Your task to perform on an android device: Open the map Image 0: 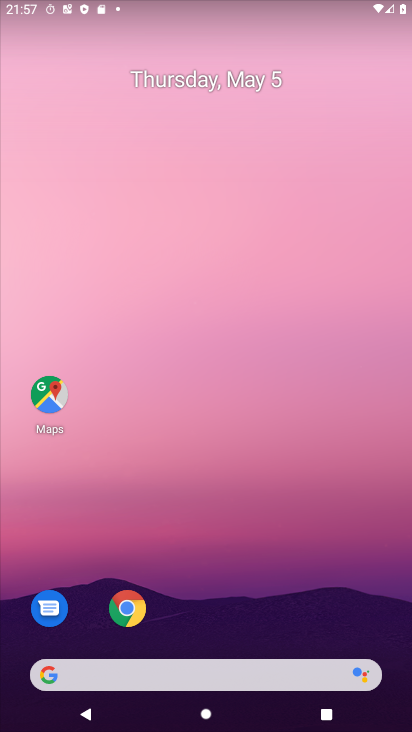
Step 0: drag from (321, 648) to (290, 65)
Your task to perform on an android device: Open the map Image 1: 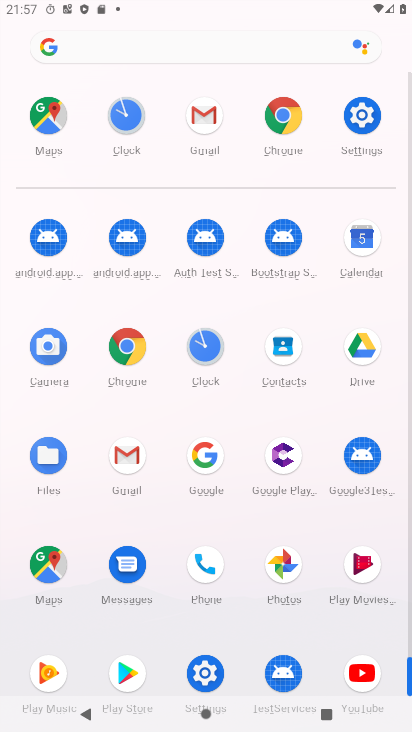
Step 1: click (56, 563)
Your task to perform on an android device: Open the map Image 2: 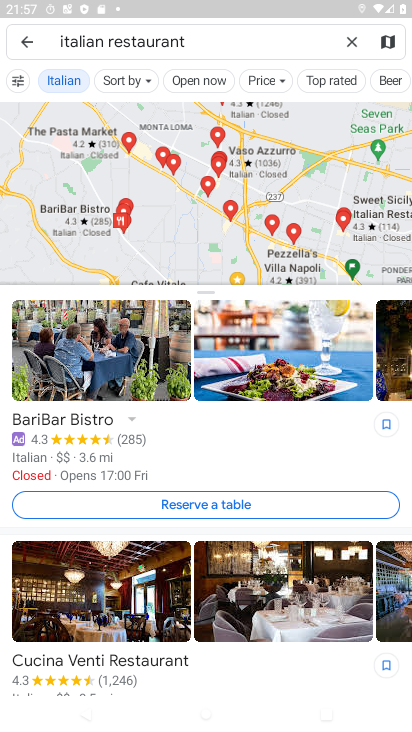
Step 2: task complete